Your task to perform on an android device: uninstall "Truecaller" Image 0: 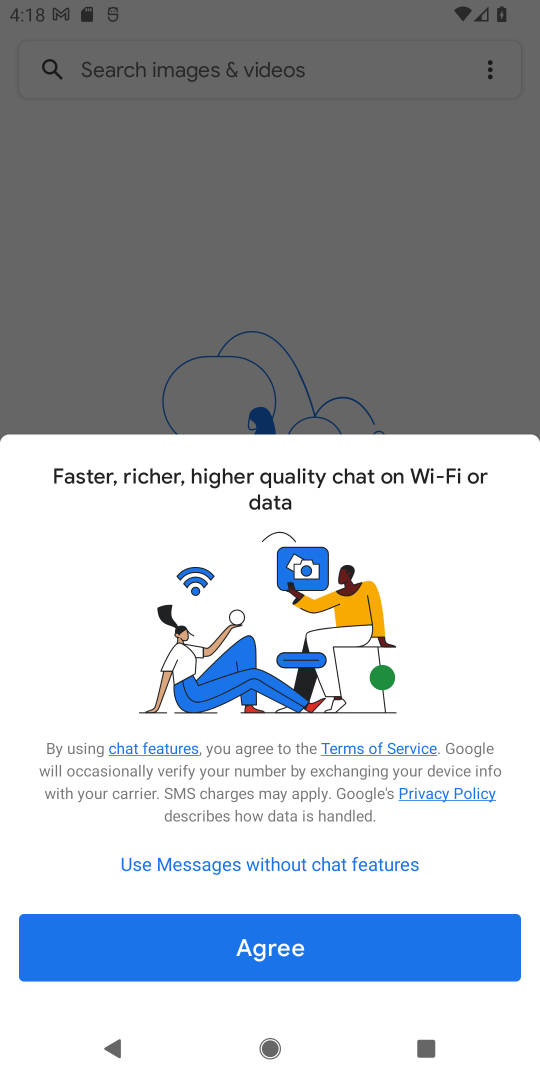
Step 0: press home button
Your task to perform on an android device: uninstall "Truecaller" Image 1: 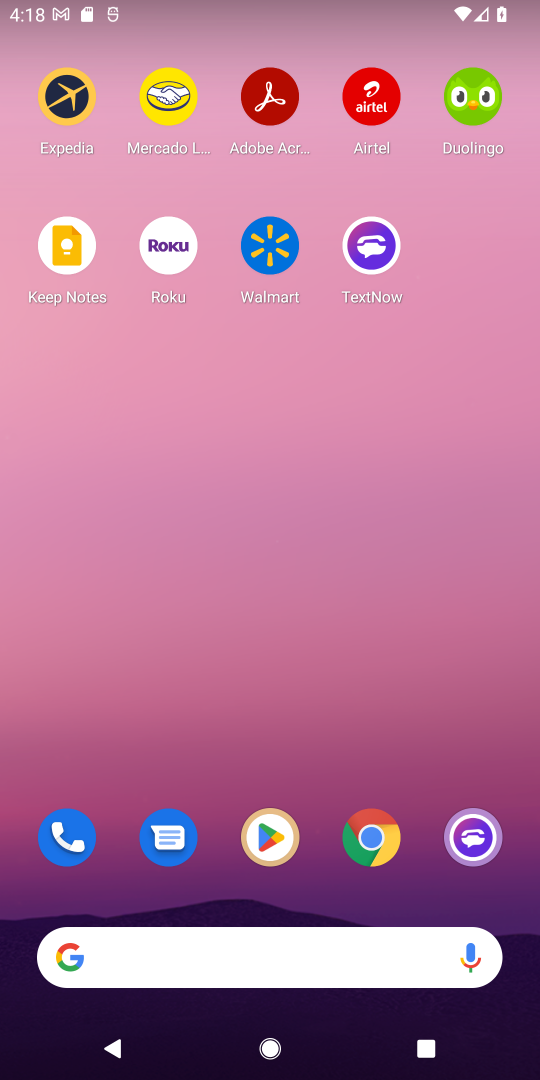
Step 1: press home button
Your task to perform on an android device: uninstall "Truecaller" Image 2: 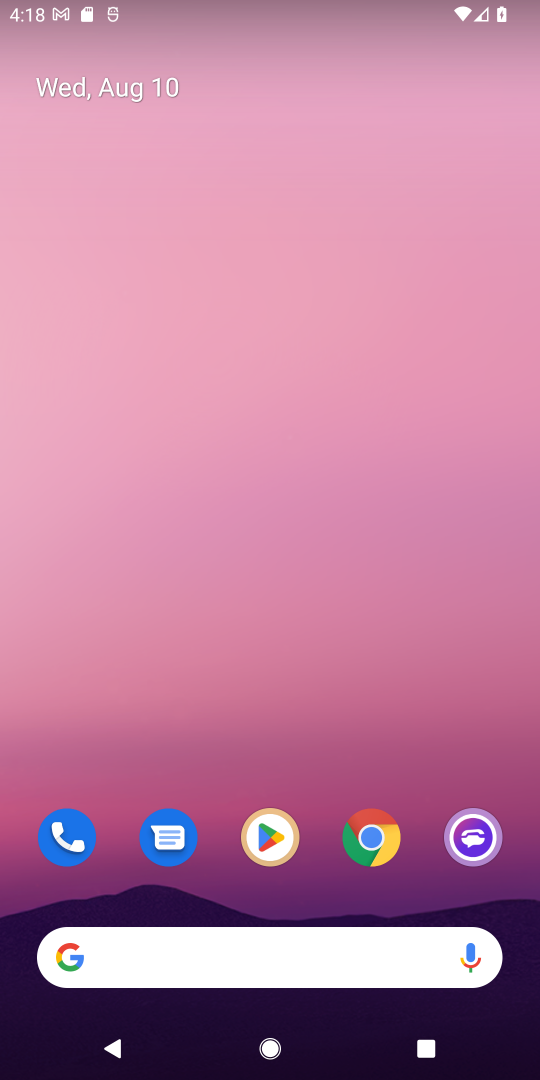
Step 2: click (270, 840)
Your task to perform on an android device: uninstall "Truecaller" Image 3: 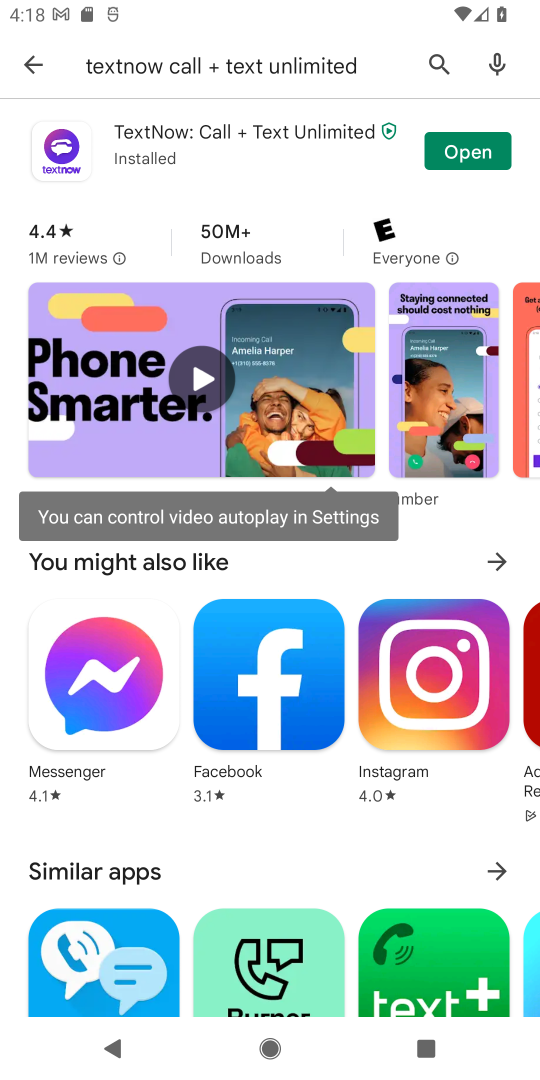
Step 3: click (441, 55)
Your task to perform on an android device: uninstall "Truecaller" Image 4: 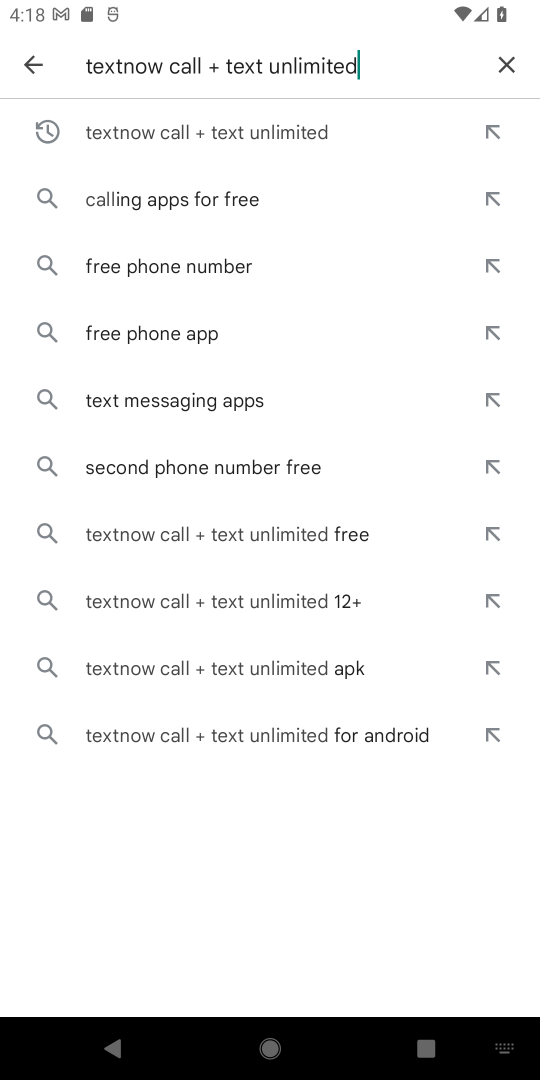
Step 4: click (504, 64)
Your task to perform on an android device: uninstall "Truecaller" Image 5: 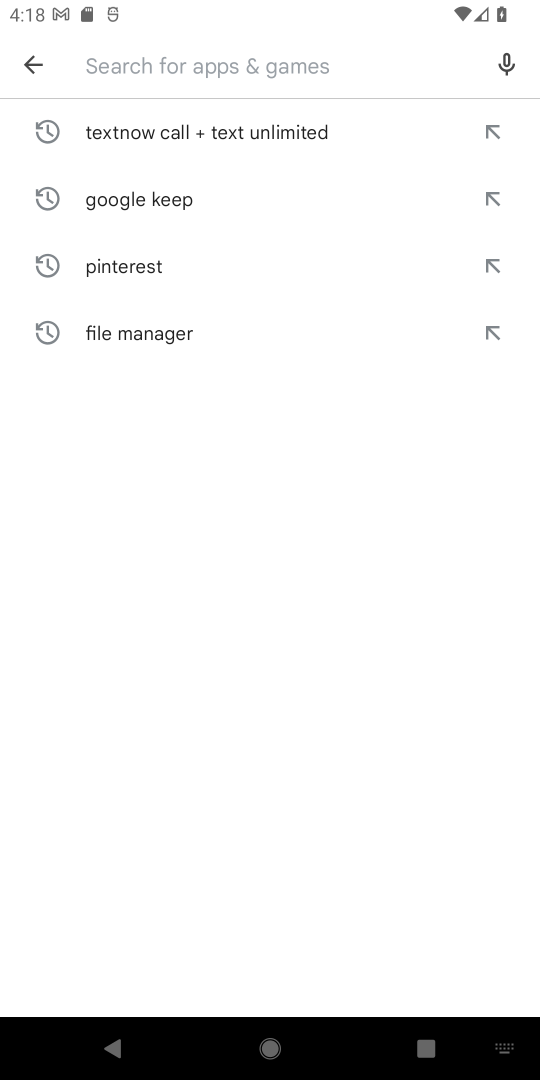
Step 5: type "Truecaller"
Your task to perform on an android device: uninstall "Truecaller" Image 6: 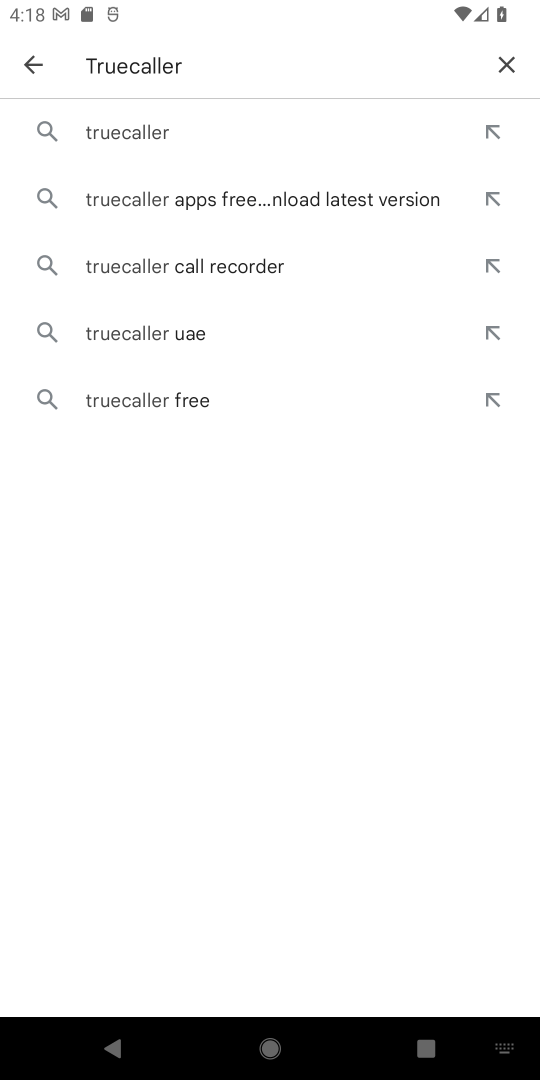
Step 6: click (164, 127)
Your task to perform on an android device: uninstall "Truecaller" Image 7: 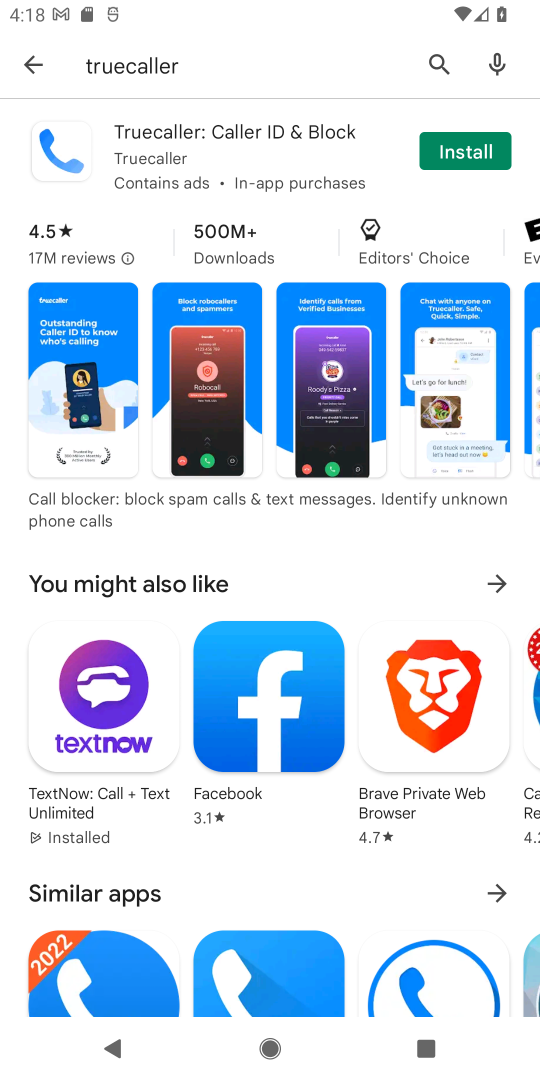
Step 7: task complete